Your task to perform on an android device: change text size in settings app Image 0: 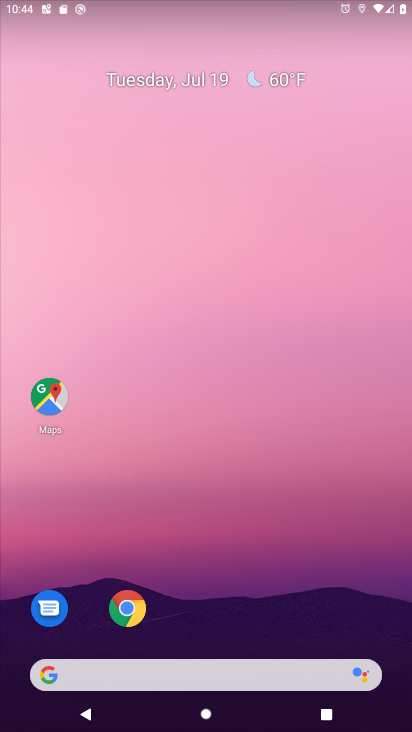
Step 0: drag from (230, 656) to (156, 162)
Your task to perform on an android device: change text size in settings app Image 1: 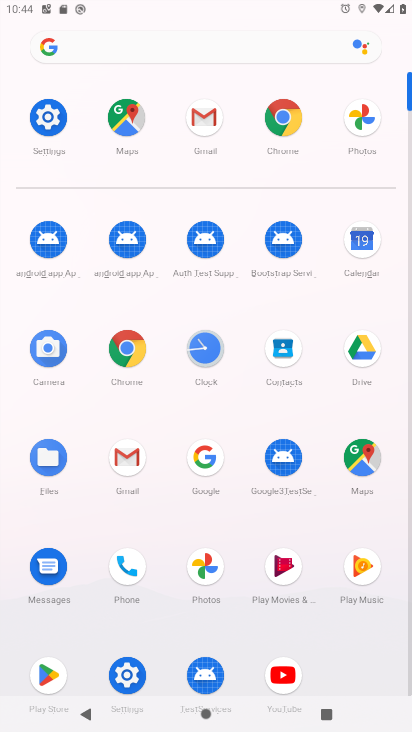
Step 1: click (53, 116)
Your task to perform on an android device: change text size in settings app Image 2: 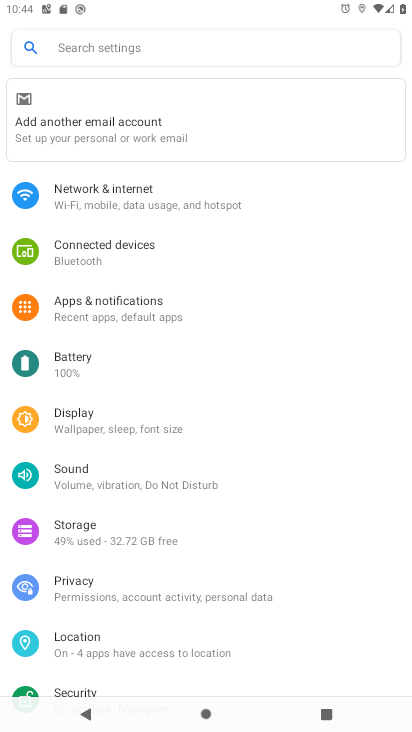
Step 2: click (90, 411)
Your task to perform on an android device: change text size in settings app Image 3: 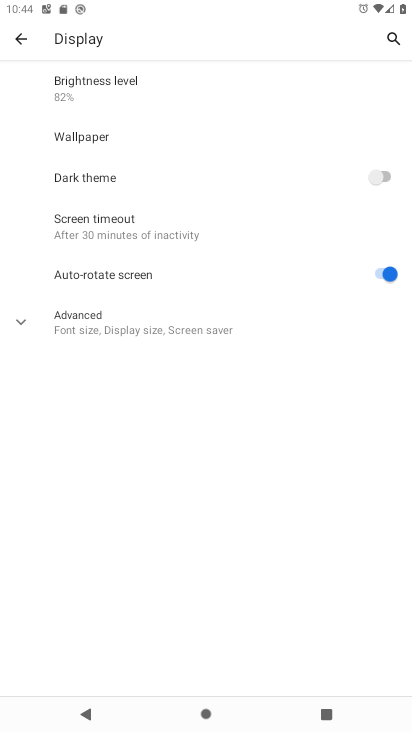
Step 3: click (59, 326)
Your task to perform on an android device: change text size in settings app Image 4: 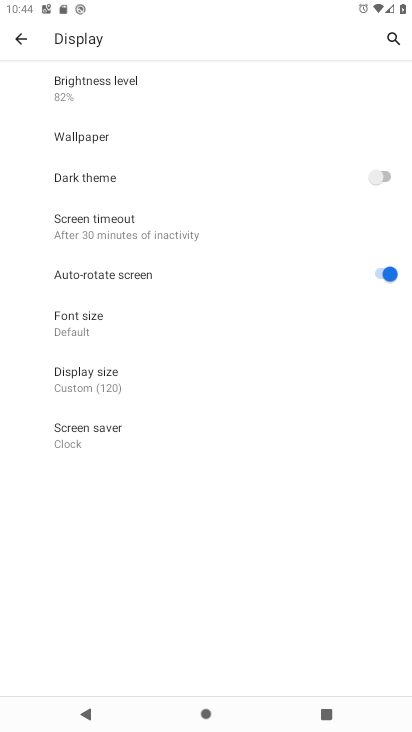
Step 4: click (76, 321)
Your task to perform on an android device: change text size in settings app Image 5: 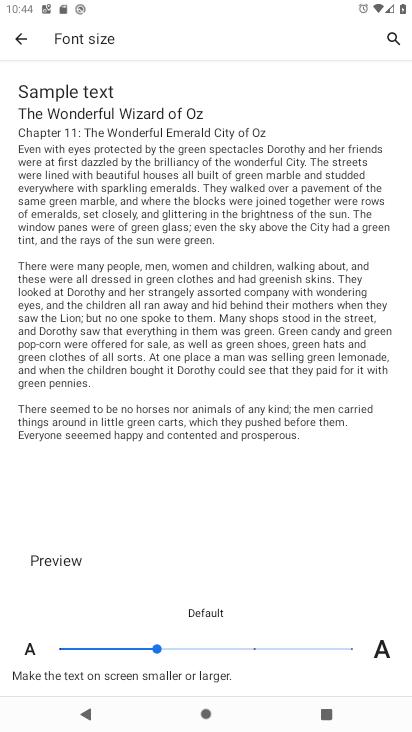
Step 5: click (254, 647)
Your task to perform on an android device: change text size in settings app Image 6: 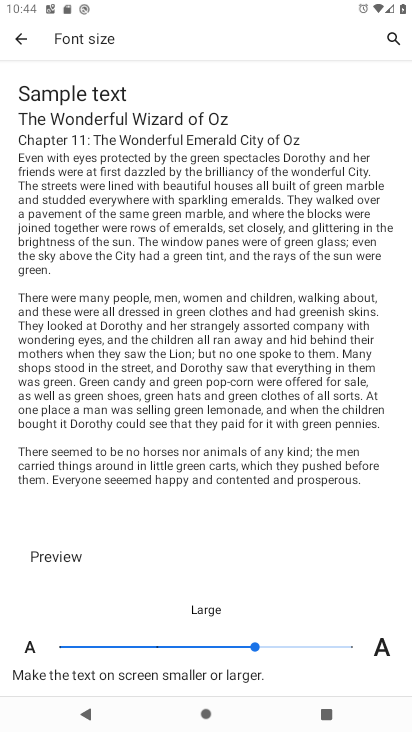
Step 6: task complete